Your task to perform on an android device: What is the price of a 12' ladder at Home Depot? Image 0: 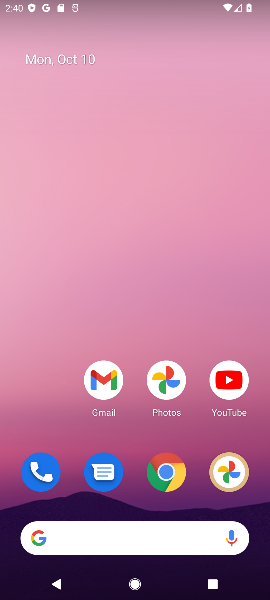
Step 0: click (164, 532)
Your task to perform on an android device: What is the price of a 12' ladder at Home Depot? Image 1: 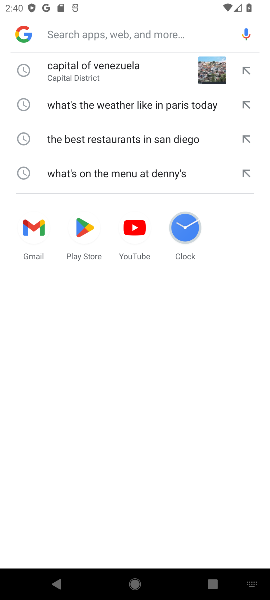
Step 1: type "What is the price of a 12' ladder at Home Depot"
Your task to perform on an android device: What is the price of a 12' ladder at Home Depot? Image 2: 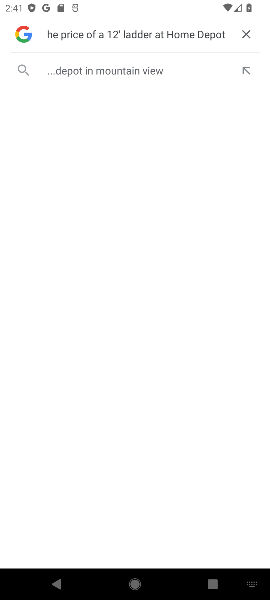
Step 2: click (122, 66)
Your task to perform on an android device: What is the price of a 12' ladder at Home Depot? Image 3: 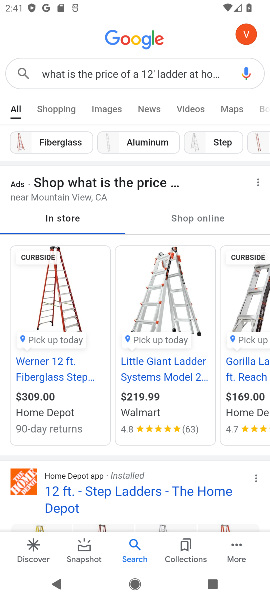
Step 3: task complete